Your task to perform on an android device: Show me popular videos on Youtube Image 0: 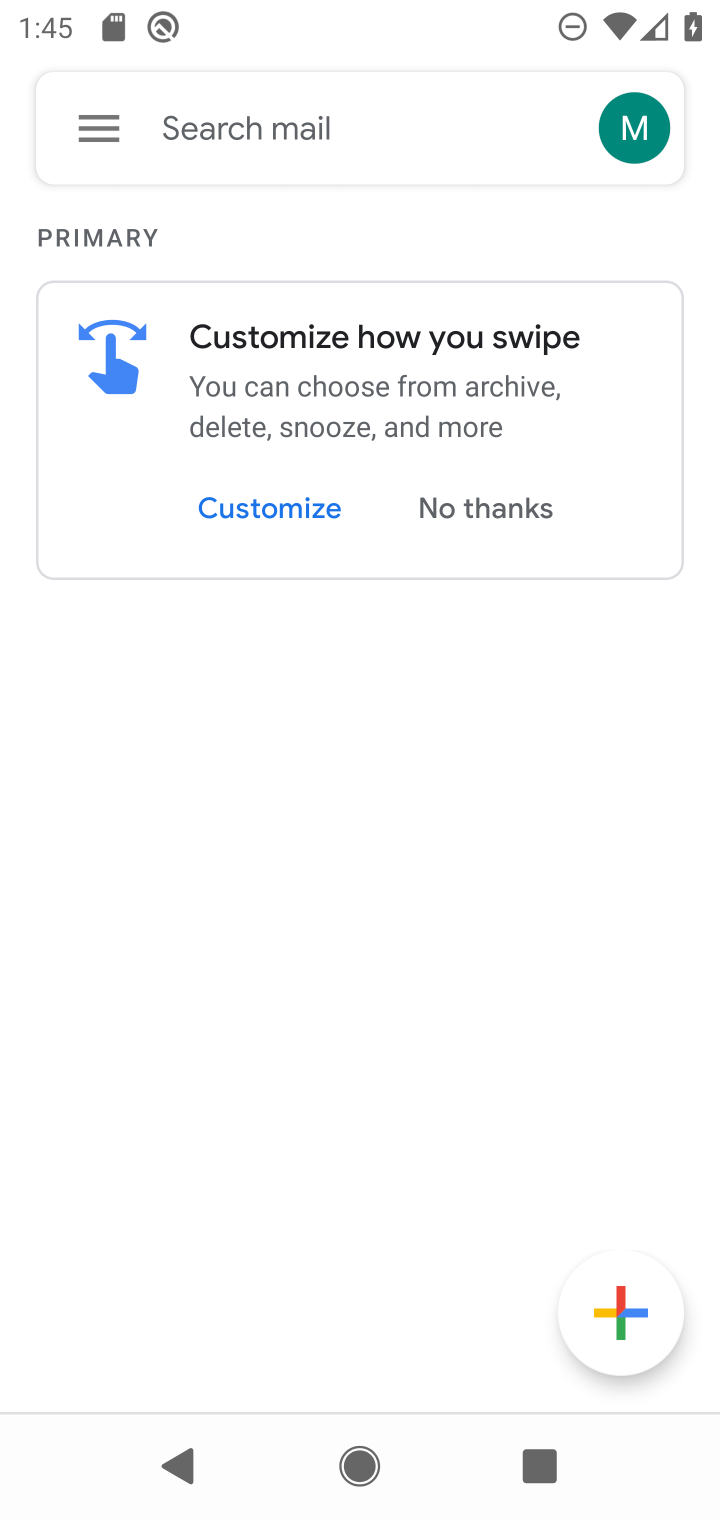
Step 0: press home button
Your task to perform on an android device: Show me popular videos on Youtube Image 1: 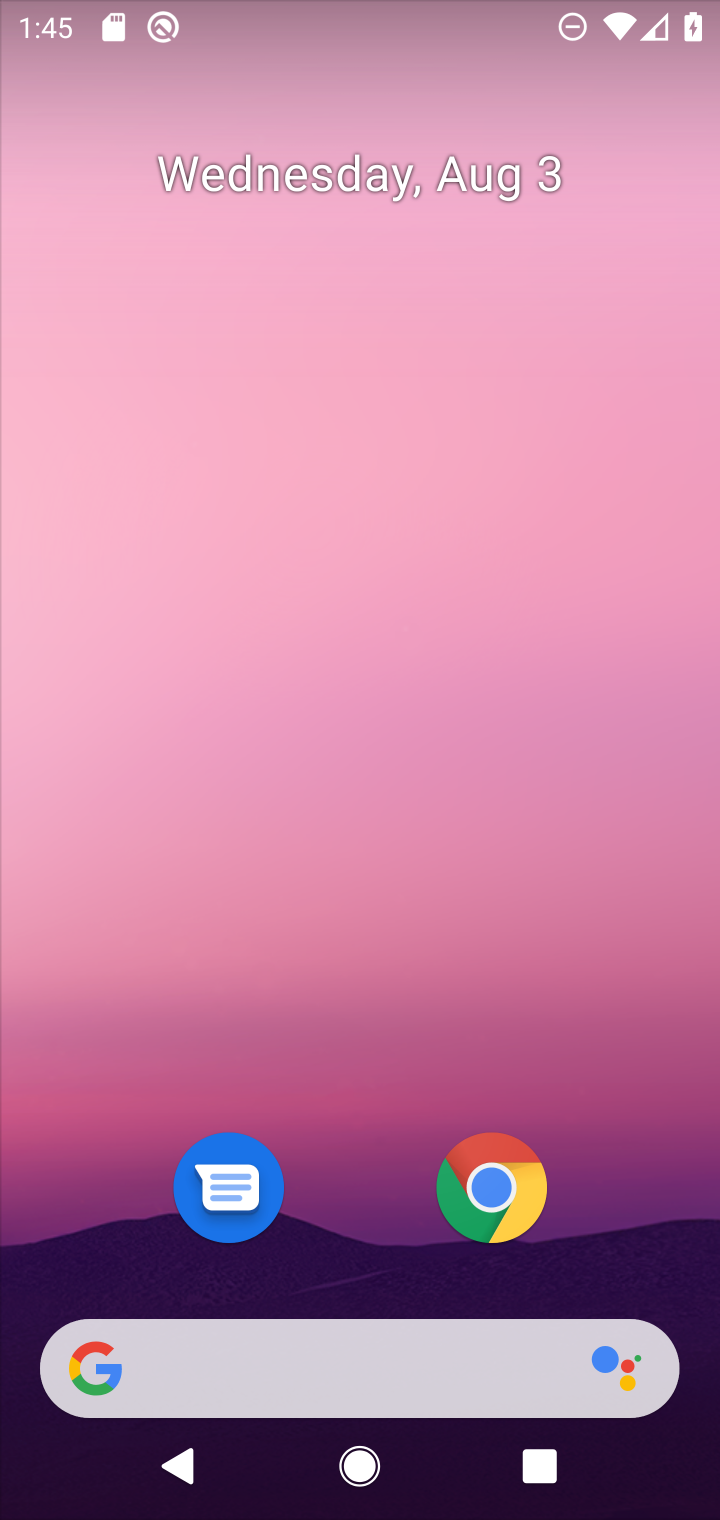
Step 1: drag from (398, 1105) to (484, 0)
Your task to perform on an android device: Show me popular videos on Youtube Image 2: 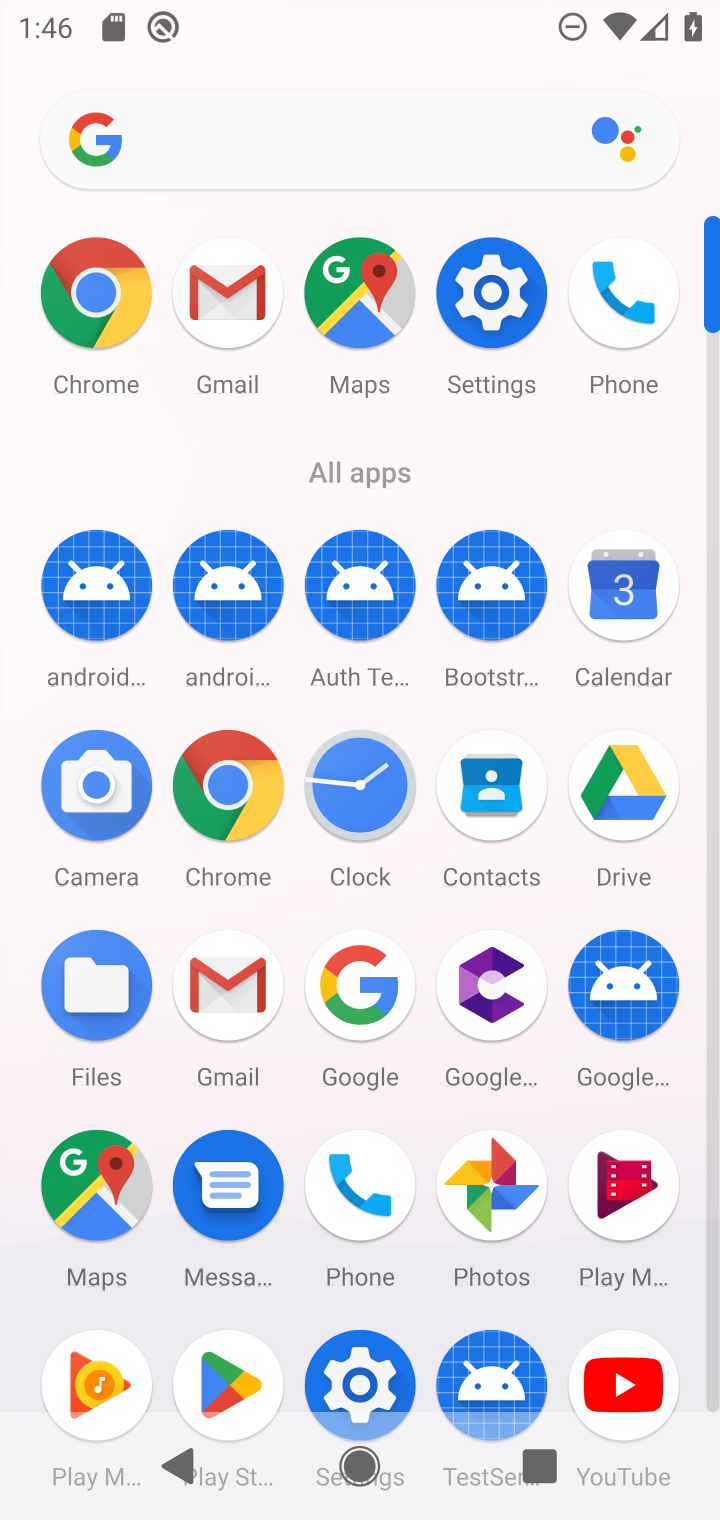
Step 2: click (627, 1382)
Your task to perform on an android device: Show me popular videos on Youtube Image 3: 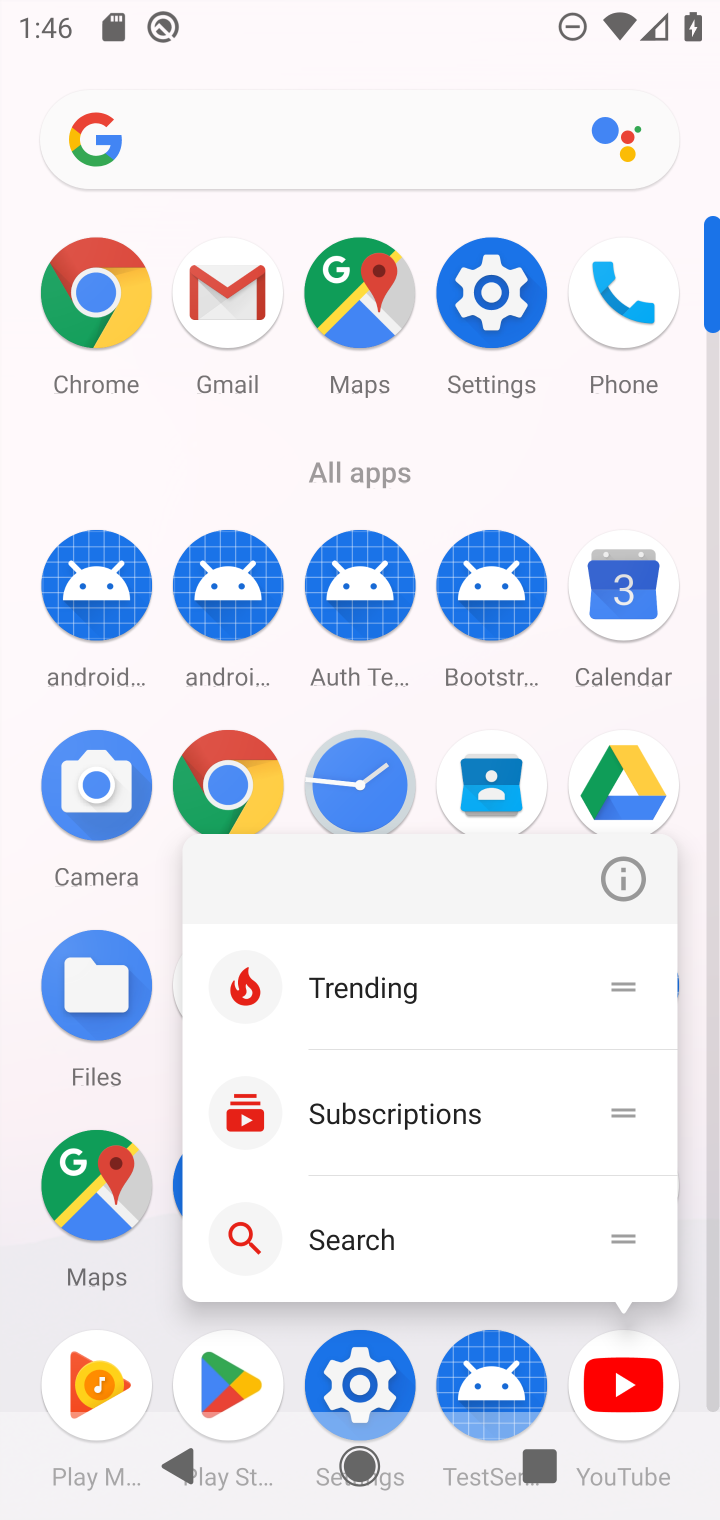
Step 3: click (627, 1379)
Your task to perform on an android device: Show me popular videos on Youtube Image 4: 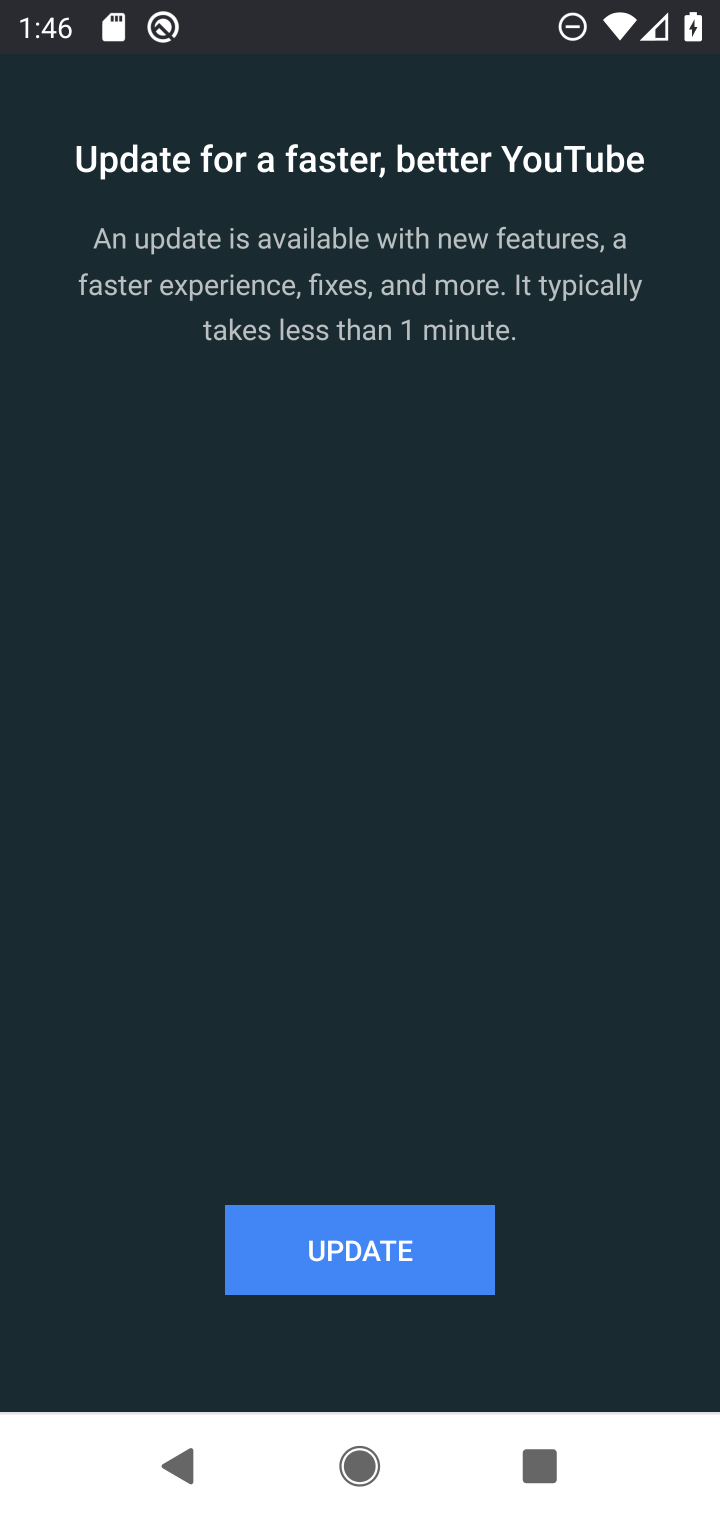
Step 4: click (432, 1229)
Your task to perform on an android device: Show me popular videos on Youtube Image 5: 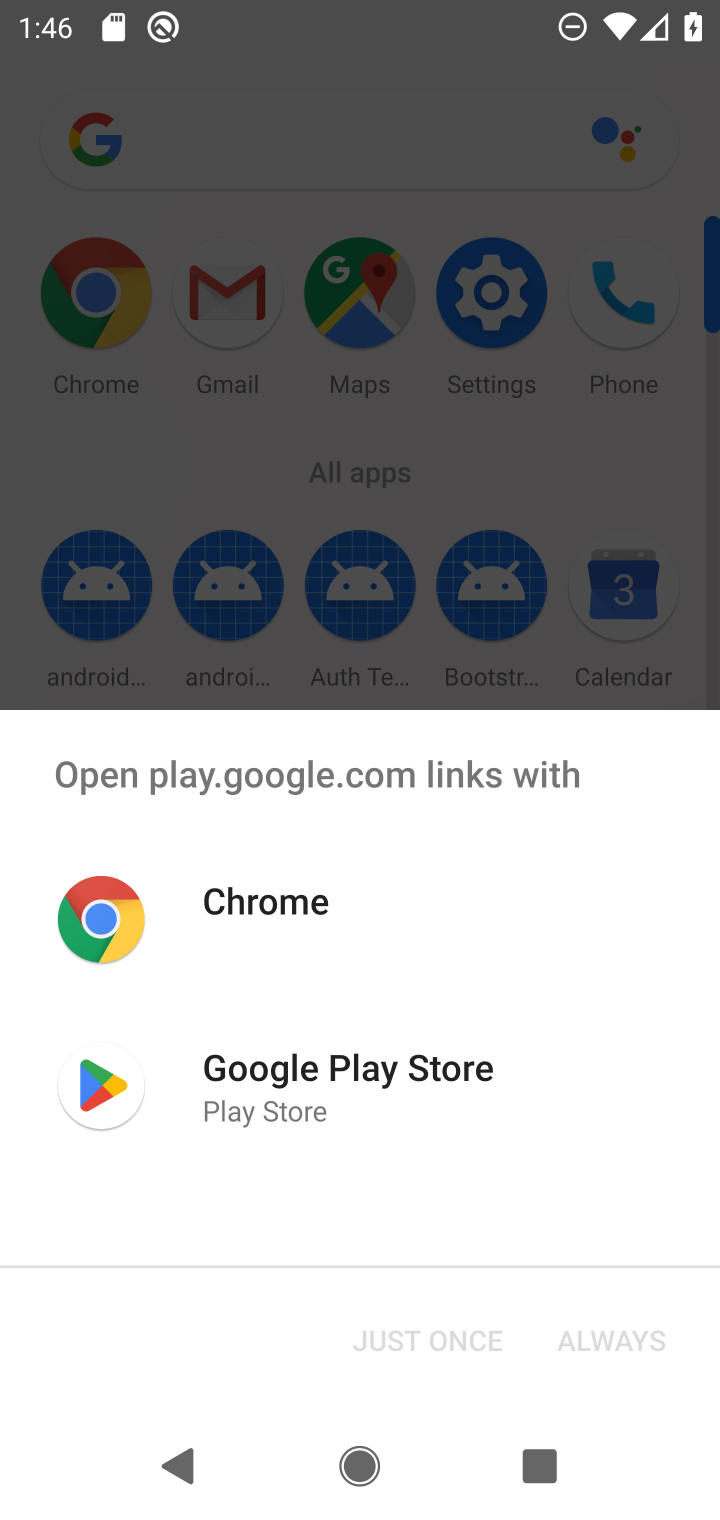
Step 5: click (299, 1074)
Your task to perform on an android device: Show me popular videos on Youtube Image 6: 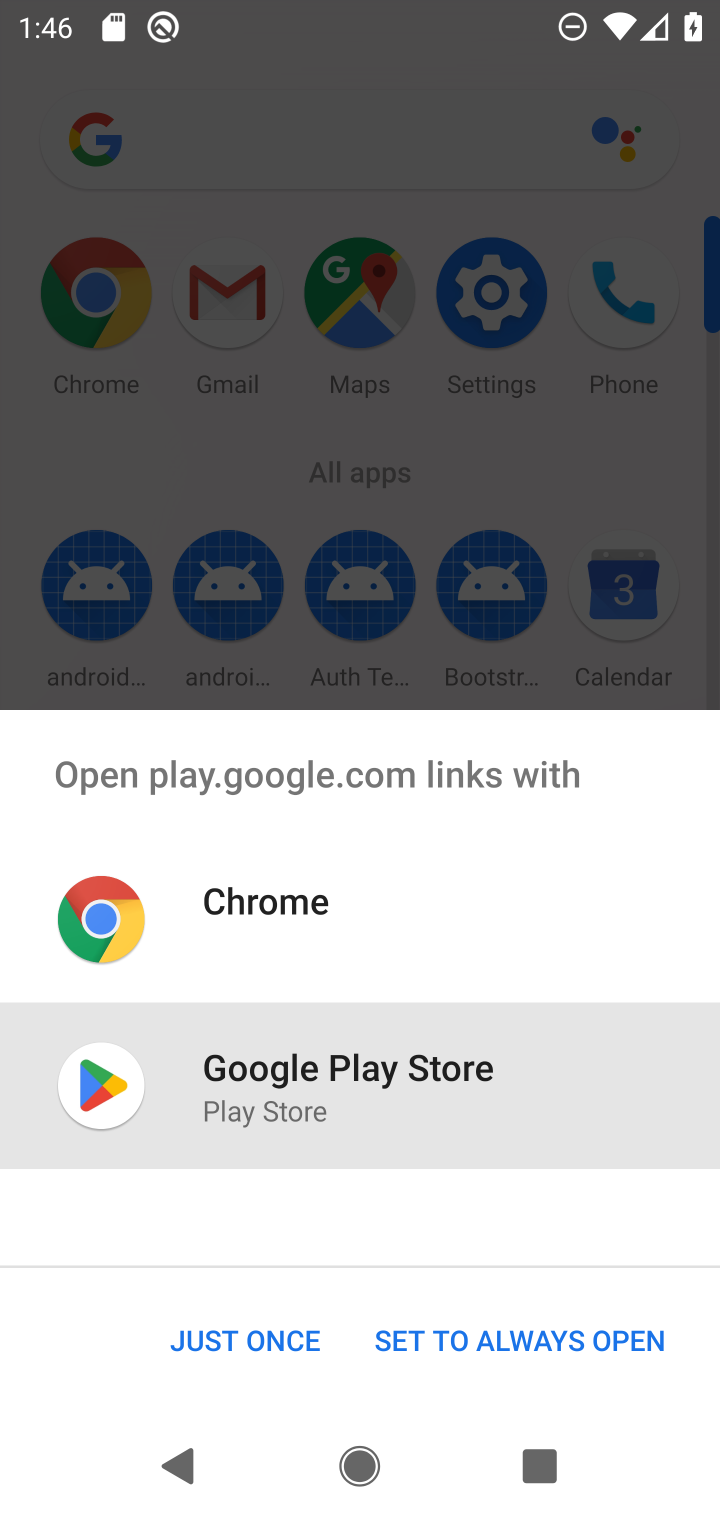
Step 6: click (300, 1346)
Your task to perform on an android device: Show me popular videos on Youtube Image 7: 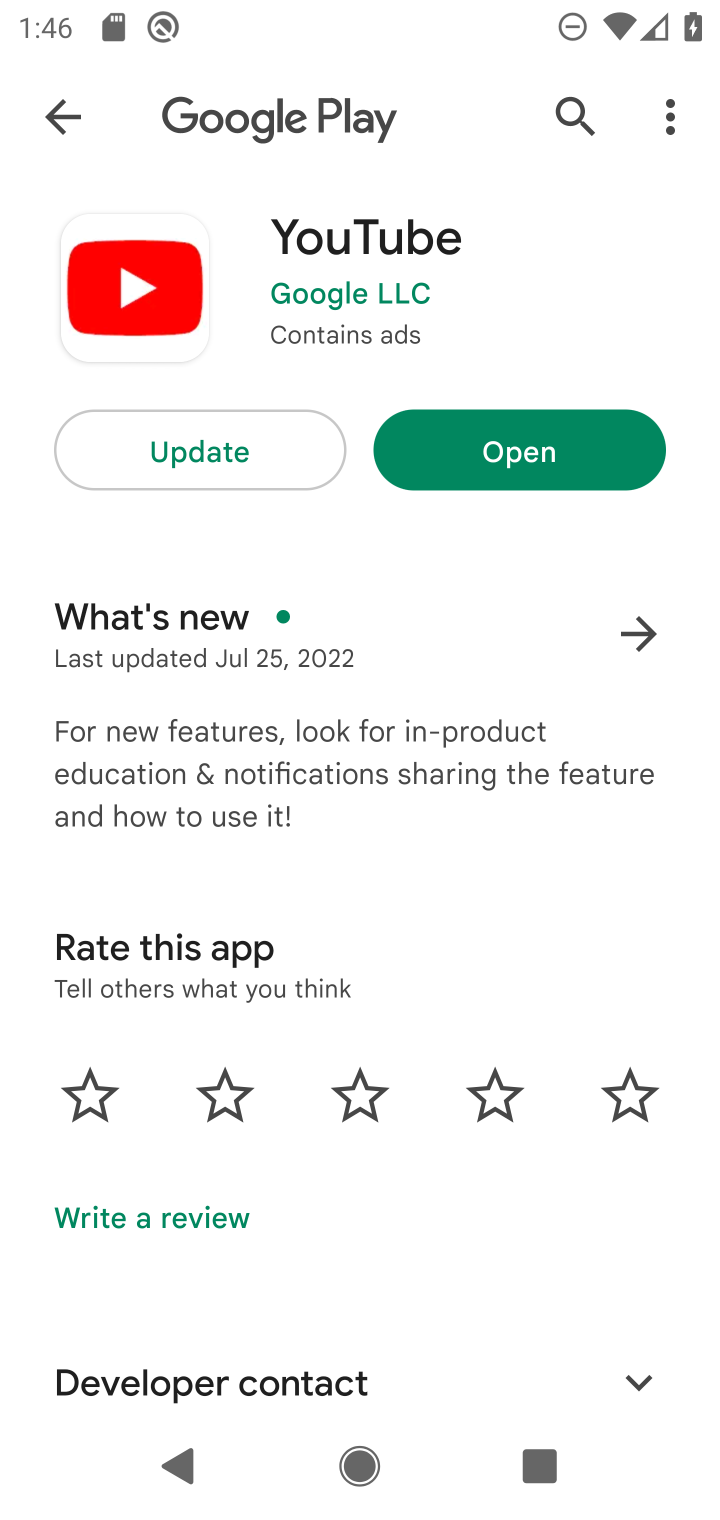
Step 7: click (285, 435)
Your task to perform on an android device: Show me popular videos on Youtube Image 8: 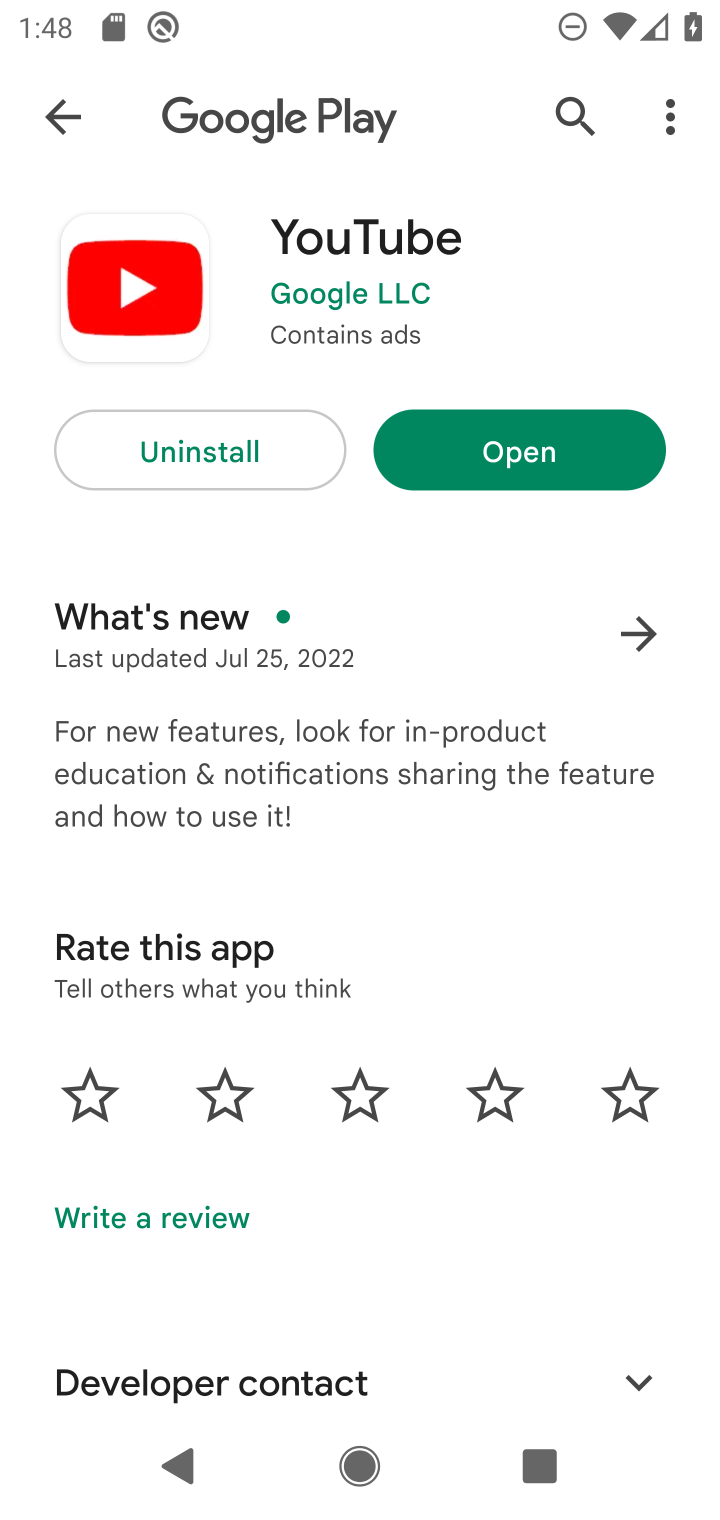
Step 8: click (646, 437)
Your task to perform on an android device: Show me popular videos on Youtube Image 9: 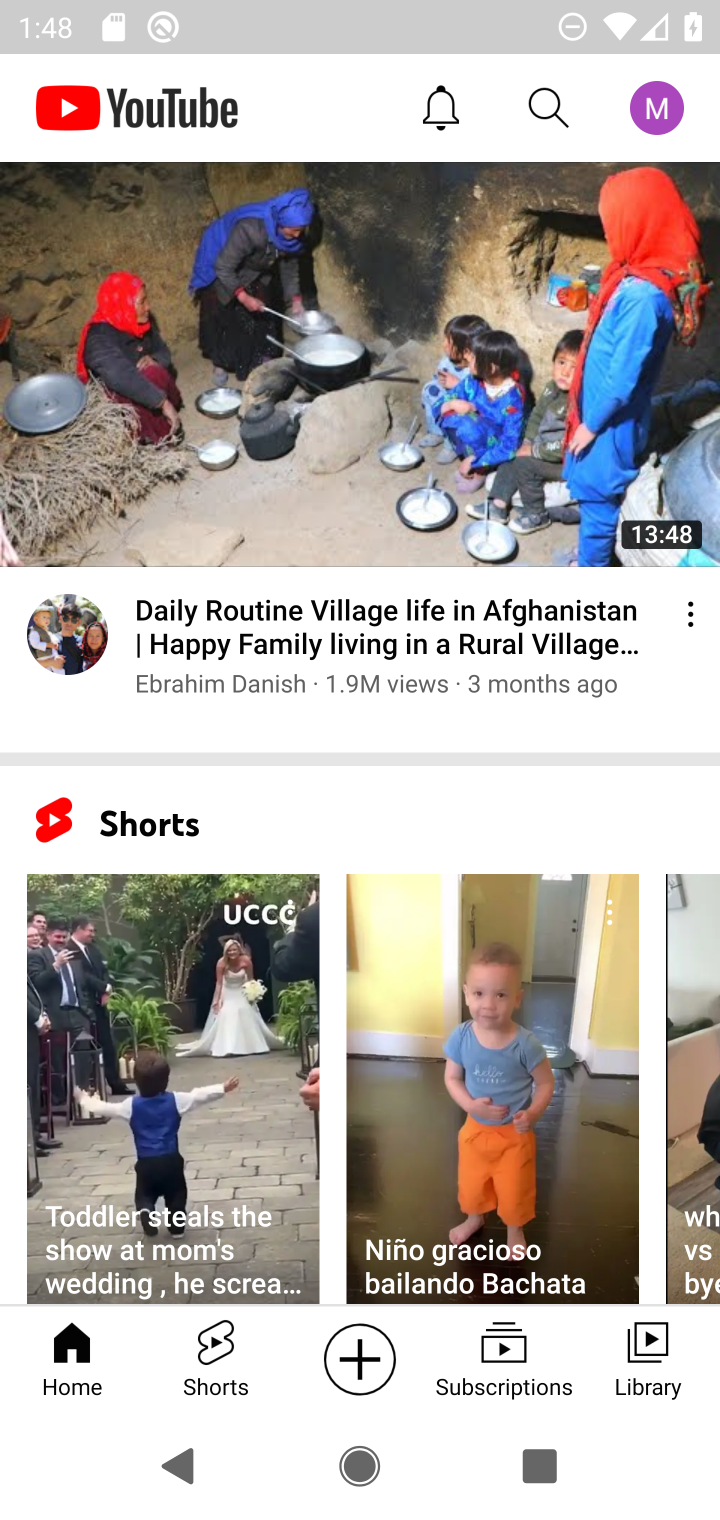
Step 9: click (544, 99)
Your task to perform on an android device: Show me popular videos on Youtube Image 10: 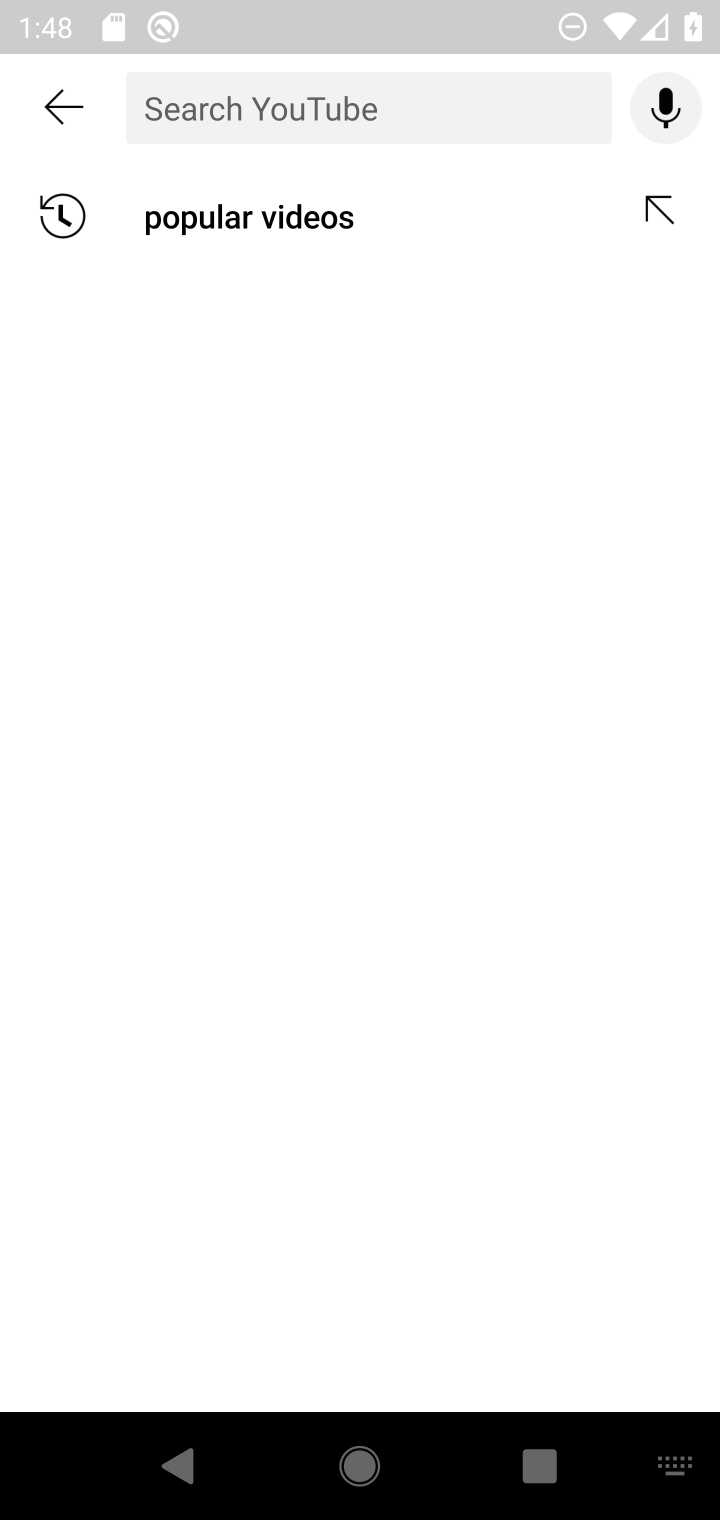
Step 10: click (302, 213)
Your task to perform on an android device: Show me popular videos on Youtube Image 11: 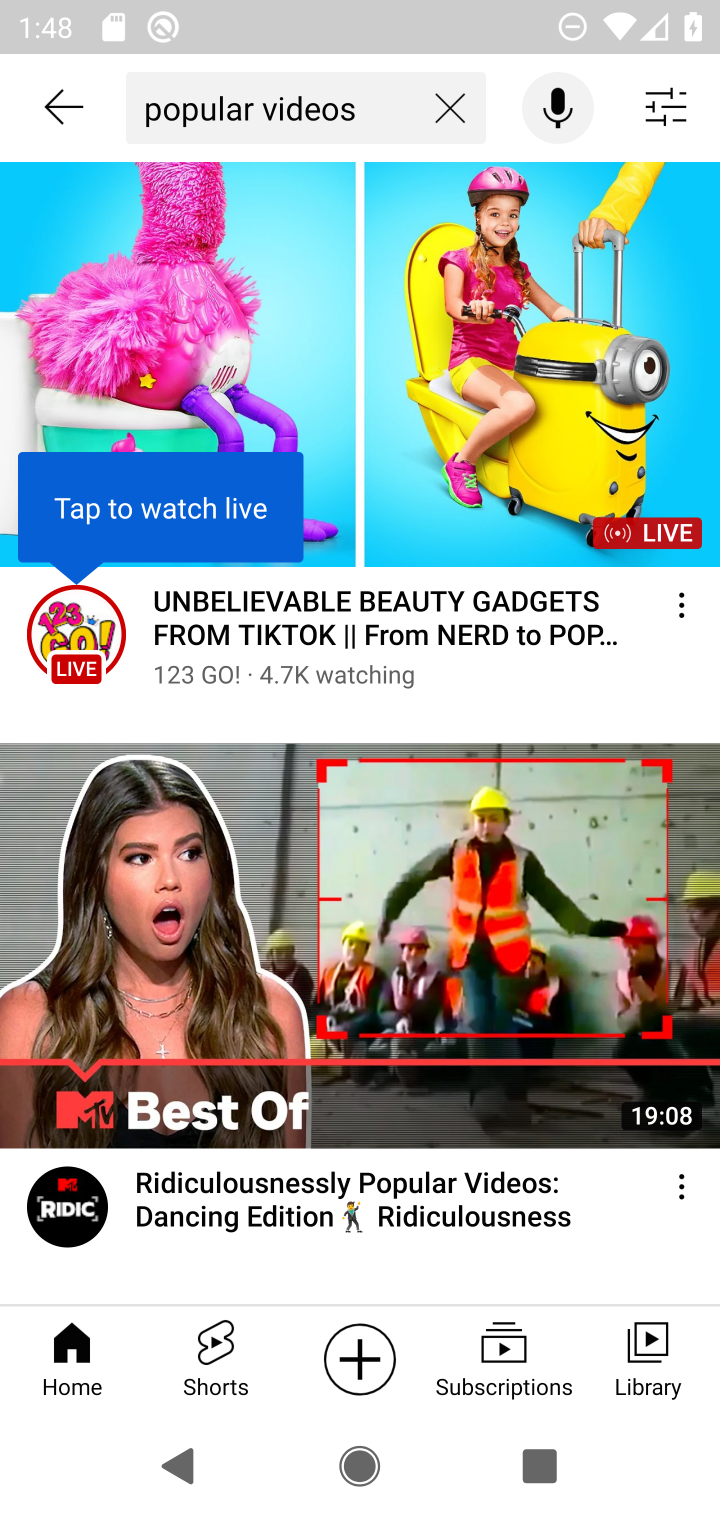
Step 11: task complete